Your task to perform on an android device: Go to Yahoo.com Image 0: 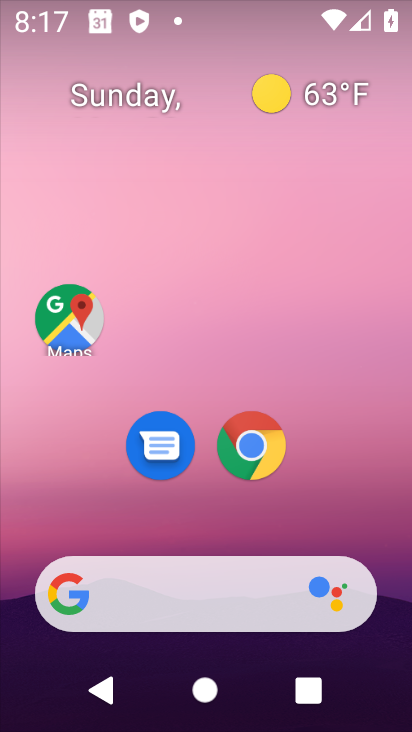
Step 0: click (262, 435)
Your task to perform on an android device: Go to Yahoo.com Image 1: 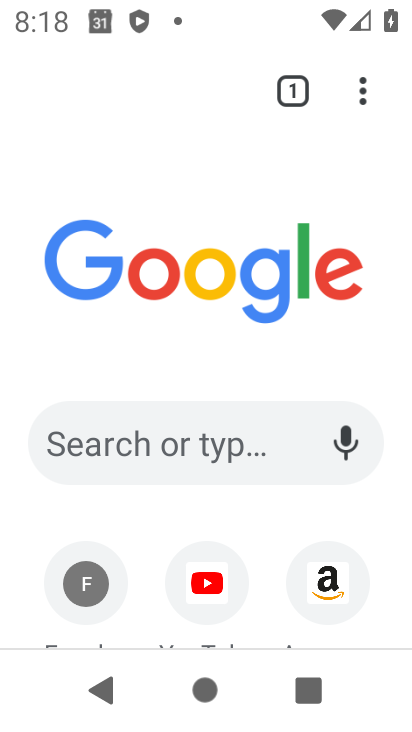
Step 1: click (208, 461)
Your task to perform on an android device: Go to Yahoo.com Image 2: 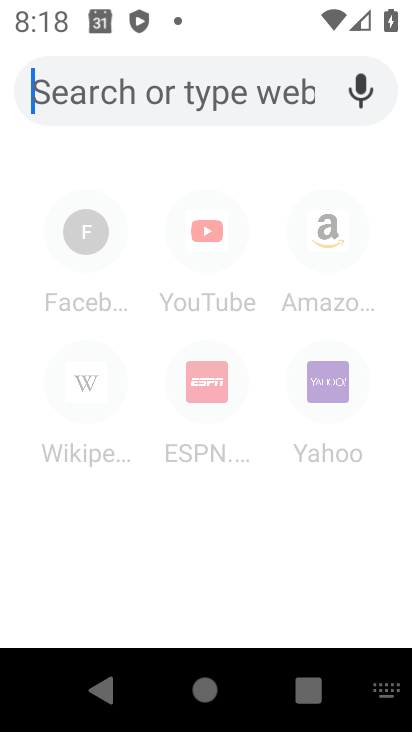
Step 2: type "yahoo.com"
Your task to perform on an android device: Go to Yahoo.com Image 3: 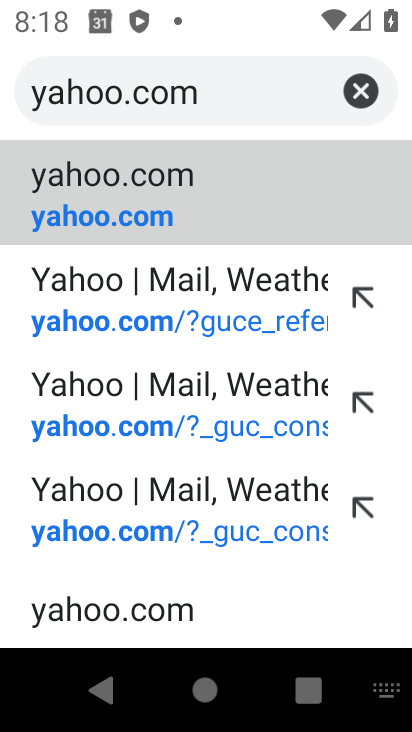
Step 3: click (104, 198)
Your task to perform on an android device: Go to Yahoo.com Image 4: 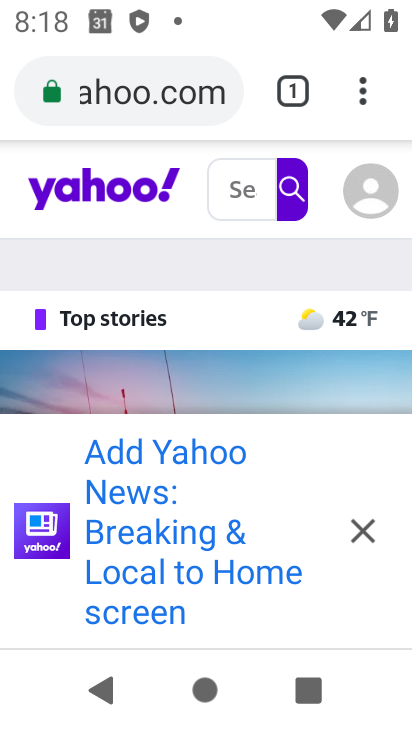
Step 4: task complete